Your task to perform on an android device: Empty the shopping cart on ebay.com. Search for beats solo 3 on ebay.com, select the first entry, add it to the cart, then select checkout. Image 0: 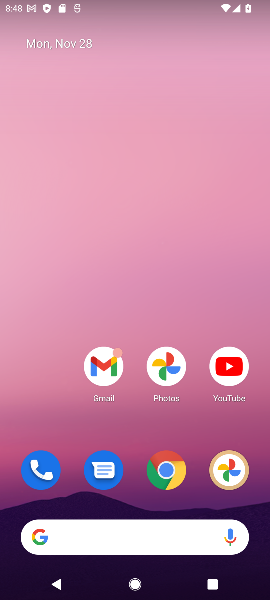
Step 0: drag from (130, 469) to (123, 132)
Your task to perform on an android device: Empty the shopping cart on ebay.com. Search for beats solo 3 on ebay.com, select the first entry, add it to the cart, then select checkout. Image 1: 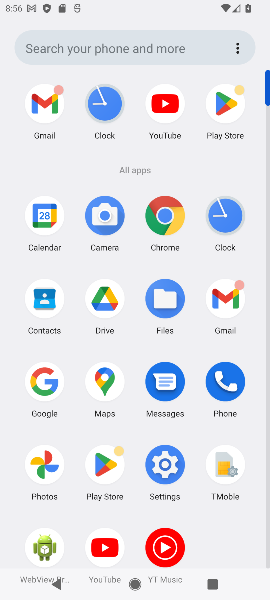
Step 1: click (42, 389)
Your task to perform on an android device: Empty the shopping cart on ebay.com. Search for beats solo 3 on ebay.com, select the first entry, add it to the cart, then select checkout. Image 2: 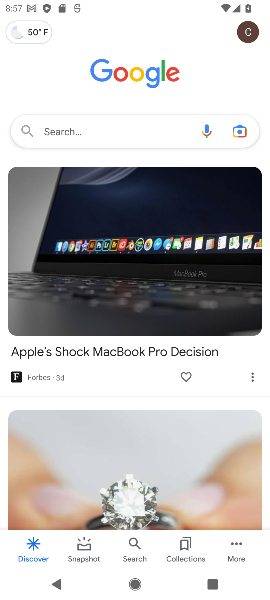
Step 2: click (99, 130)
Your task to perform on an android device: Empty the shopping cart on ebay.com. Search for beats solo 3 on ebay.com, select the first entry, add it to the cart, then select checkout. Image 3: 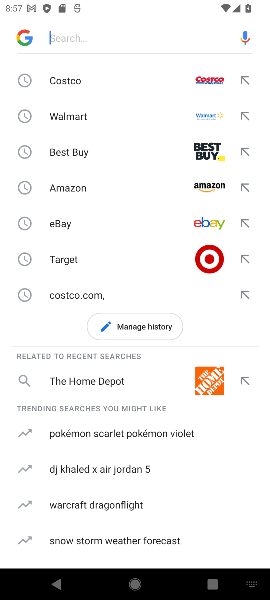
Step 3: click (53, 222)
Your task to perform on an android device: Empty the shopping cart on ebay.com. Search for beats solo 3 on ebay.com, select the first entry, add it to the cart, then select checkout. Image 4: 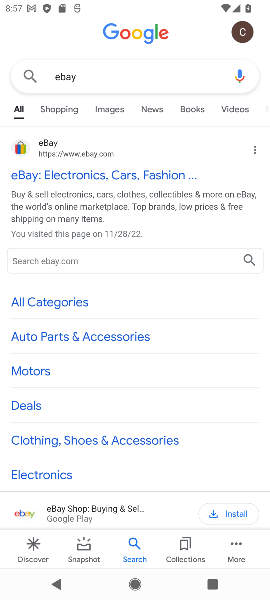
Step 4: click (75, 174)
Your task to perform on an android device: Empty the shopping cart on ebay.com. Search for beats solo 3 on ebay.com, select the first entry, add it to the cart, then select checkout. Image 5: 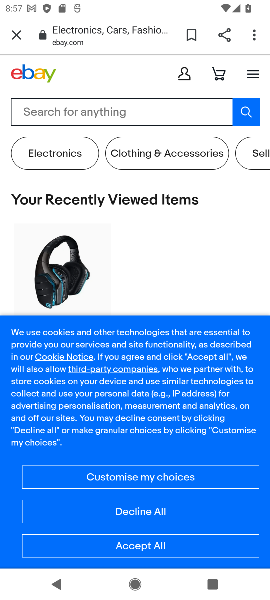
Step 5: click (218, 76)
Your task to perform on an android device: Empty the shopping cart on ebay.com. Search for beats solo 3 on ebay.com, select the first entry, add it to the cart, then select checkout. Image 6: 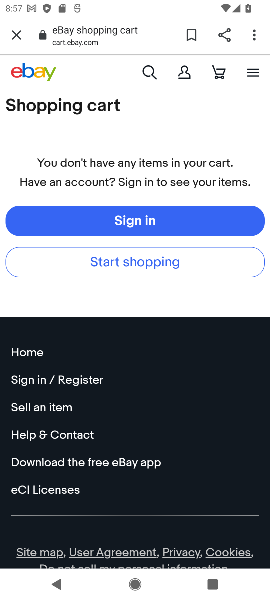
Step 6: click (143, 69)
Your task to perform on an android device: Empty the shopping cart on ebay.com. Search for beats solo 3 on ebay.com, select the first entry, add it to the cart, then select checkout. Image 7: 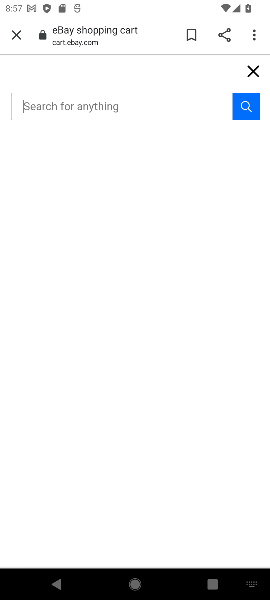
Step 7: click (100, 107)
Your task to perform on an android device: Empty the shopping cart on ebay.com. Search for beats solo 3 on ebay.com, select the first entry, add it to the cart, then select checkout. Image 8: 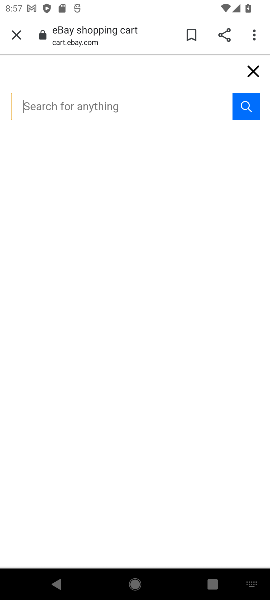
Step 8: type "beats solo 3 "
Your task to perform on an android device: Empty the shopping cart on ebay.com. Search for beats solo 3 on ebay.com, select the first entry, add it to the cart, then select checkout. Image 9: 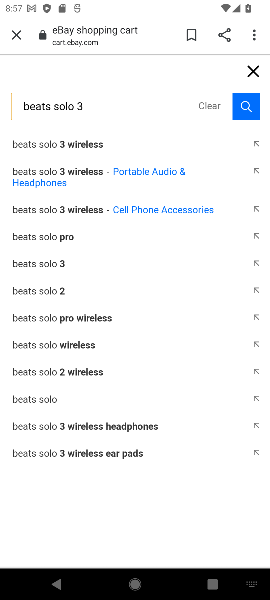
Step 9: click (61, 147)
Your task to perform on an android device: Empty the shopping cart on ebay.com. Search for beats solo 3 on ebay.com, select the first entry, add it to the cart, then select checkout. Image 10: 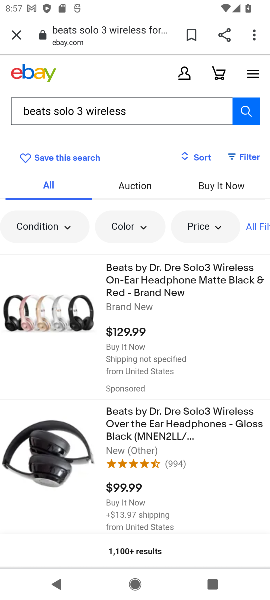
Step 10: click (149, 289)
Your task to perform on an android device: Empty the shopping cart on ebay.com. Search for beats solo 3 on ebay.com, select the first entry, add it to the cart, then select checkout. Image 11: 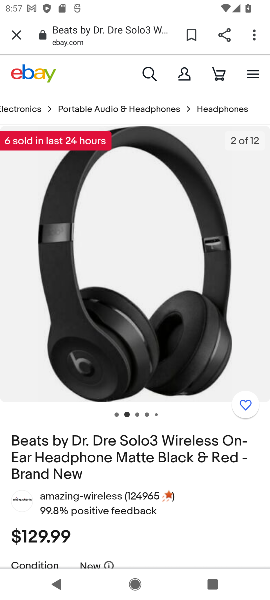
Step 11: drag from (120, 406) to (130, 272)
Your task to perform on an android device: Empty the shopping cart on ebay.com. Search for beats solo 3 on ebay.com, select the first entry, add it to the cart, then select checkout. Image 12: 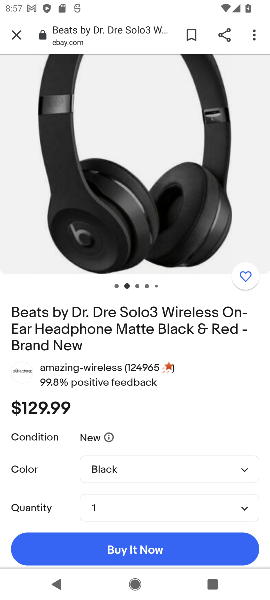
Step 12: drag from (163, 456) to (164, 363)
Your task to perform on an android device: Empty the shopping cart on ebay.com. Search for beats solo 3 on ebay.com, select the first entry, add it to the cart, then select checkout. Image 13: 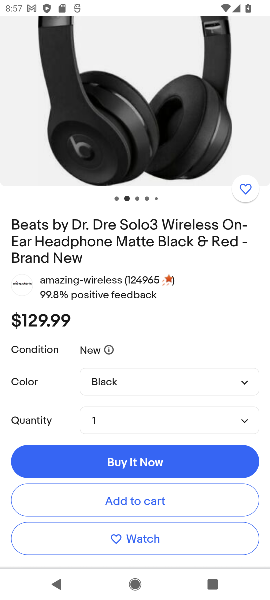
Step 13: click (122, 505)
Your task to perform on an android device: Empty the shopping cart on ebay.com. Search for beats solo 3 on ebay.com, select the first entry, add it to the cart, then select checkout. Image 14: 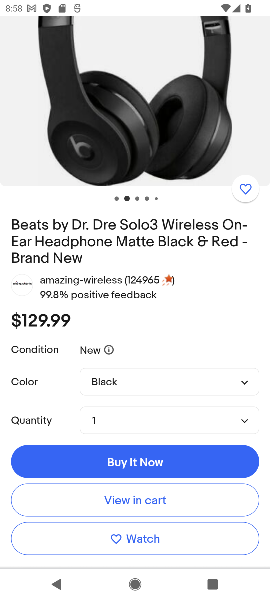
Step 14: click (133, 502)
Your task to perform on an android device: Empty the shopping cart on ebay.com. Search for beats solo 3 on ebay.com, select the first entry, add it to the cart, then select checkout. Image 15: 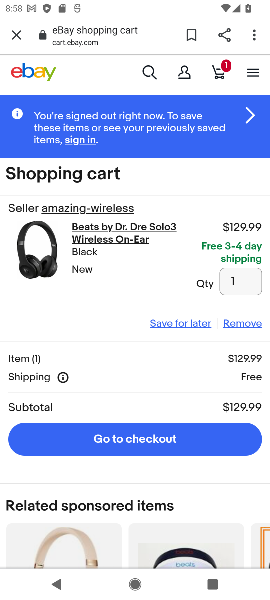
Step 15: click (130, 441)
Your task to perform on an android device: Empty the shopping cart on ebay.com. Search for beats solo 3 on ebay.com, select the first entry, add it to the cart, then select checkout. Image 16: 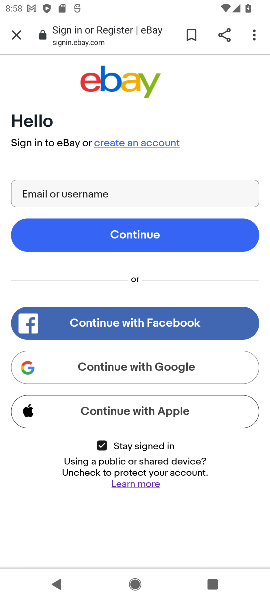
Step 16: task complete